Your task to perform on an android device: Go to internet settings Image 0: 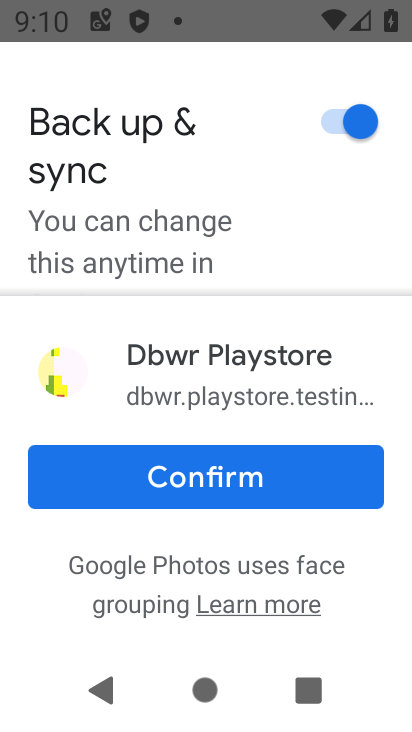
Step 0: click (134, 475)
Your task to perform on an android device: Go to internet settings Image 1: 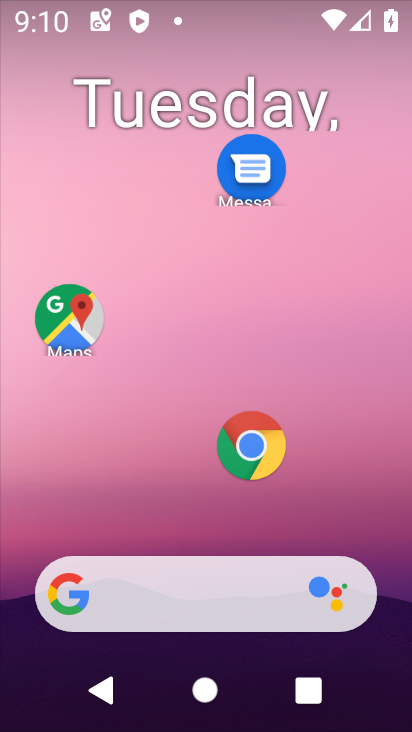
Step 1: drag from (184, 458) to (311, 54)
Your task to perform on an android device: Go to internet settings Image 2: 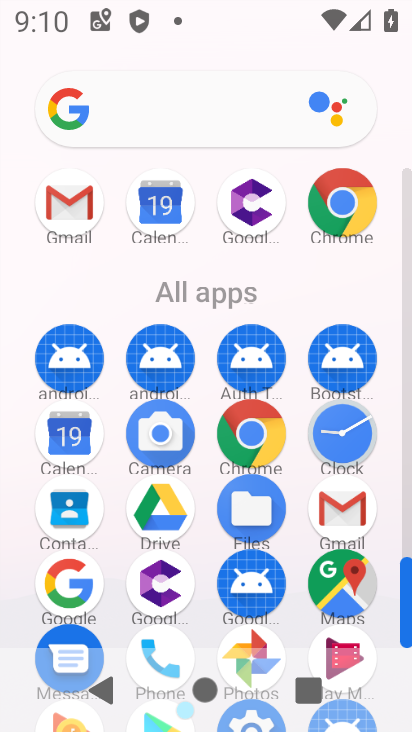
Step 2: drag from (211, 481) to (276, 18)
Your task to perform on an android device: Go to internet settings Image 3: 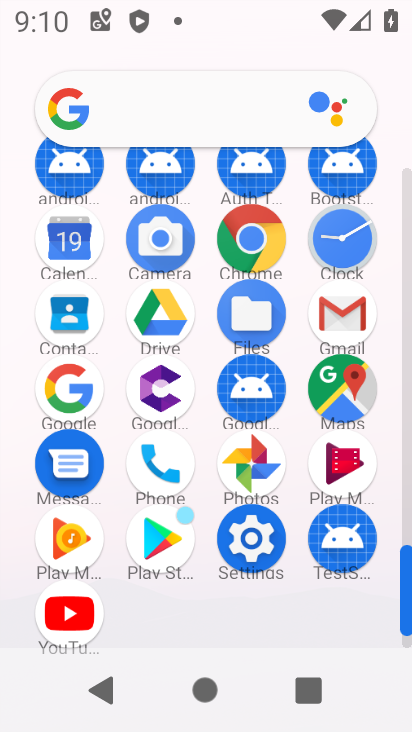
Step 3: click (260, 539)
Your task to perform on an android device: Go to internet settings Image 4: 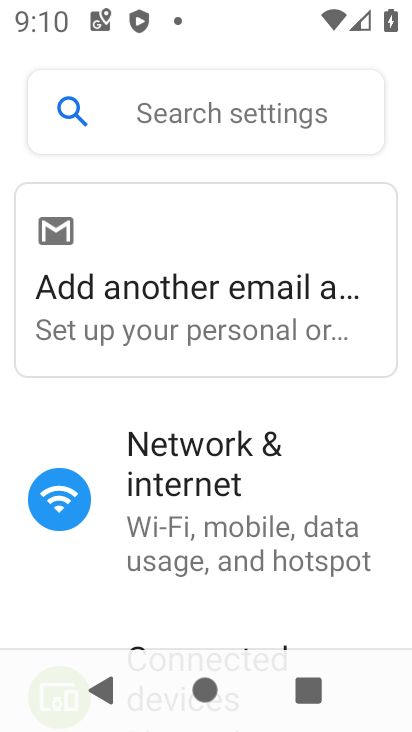
Step 4: drag from (261, 568) to (304, 171)
Your task to perform on an android device: Go to internet settings Image 5: 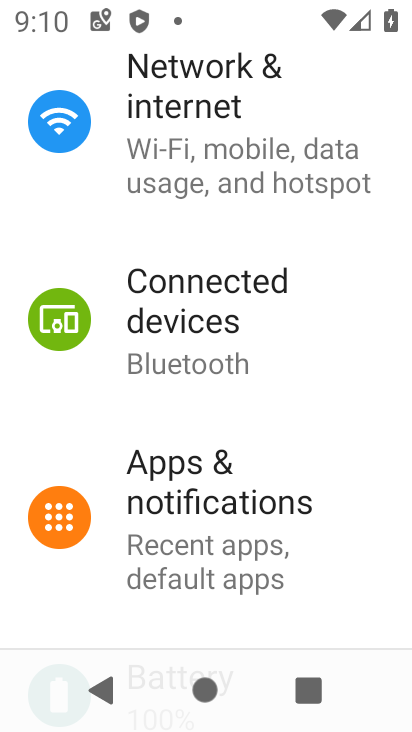
Step 5: click (304, 160)
Your task to perform on an android device: Go to internet settings Image 6: 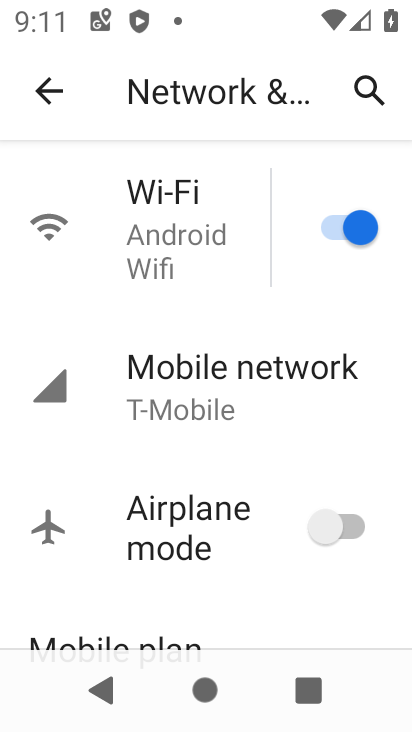
Step 6: click (248, 391)
Your task to perform on an android device: Go to internet settings Image 7: 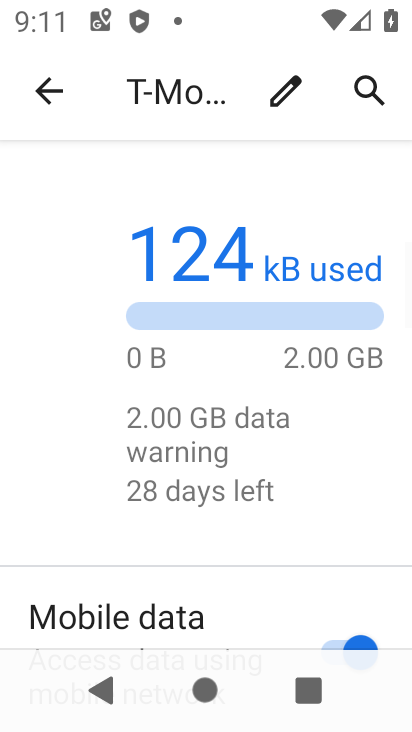
Step 7: task complete